Your task to perform on an android device: turn off notifications settings in the gmail app Image 0: 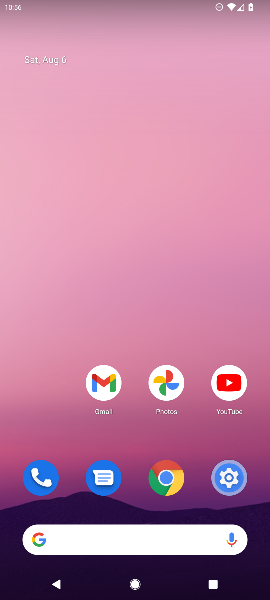
Step 0: drag from (123, 521) to (144, 104)
Your task to perform on an android device: turn off notifications settings in the gmail app Image 1: 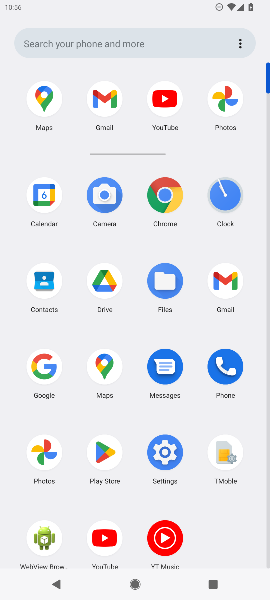
Step 1: click (99, 98)
Your task to perform on an android device: turn off notifications settings in the gmail app Image 2: 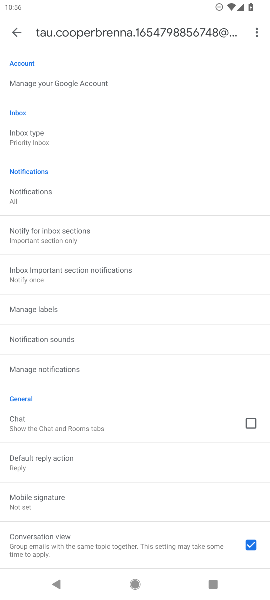
Step 2: click (44, 192)
Your task to perform on an android device: turn off notifications settings in the gmail app Image 3: 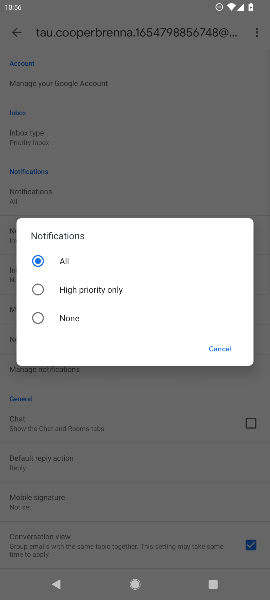
Step 3: click (36, 316)
Your task to perform on an android device: turn off notifications settings in the gmail app Image 4: 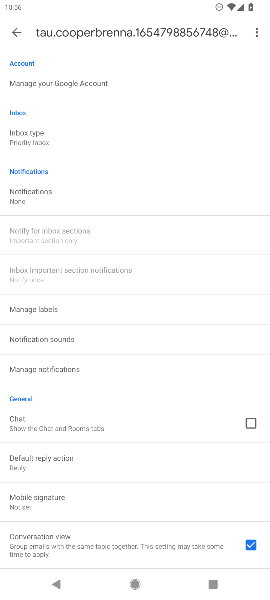
Step 4: task complete